Your task to perform on an android device: turn on sleep mode Image 0: 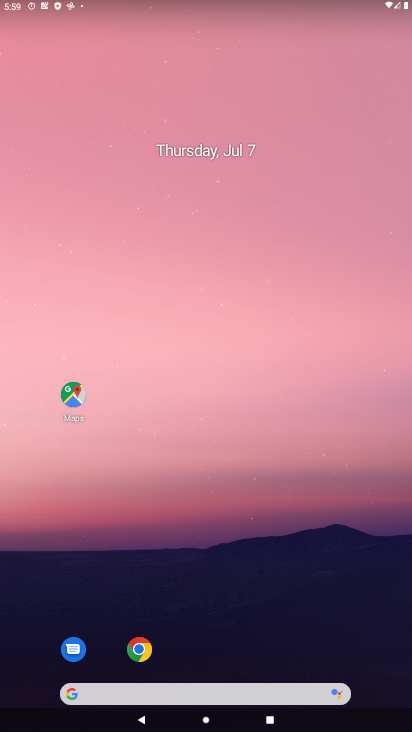
Step 0: drag from (359, 669) to (290, 3)
Your task to perform on an android device: turn on sleep mode Image 1: 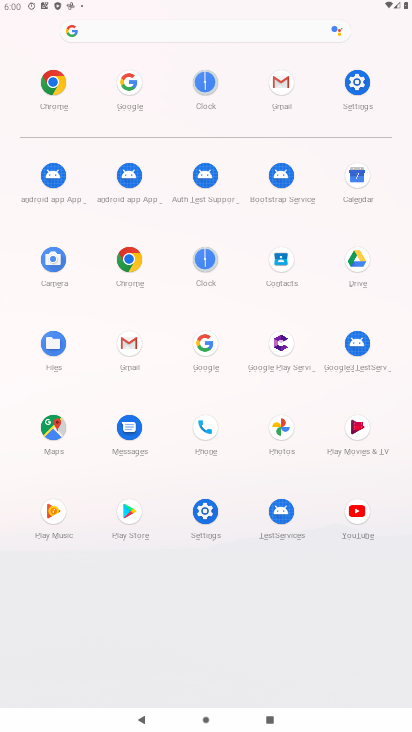
Step 1: click (356, 75)
Your task to perform on an android device: turn on sleep mode Image 2: 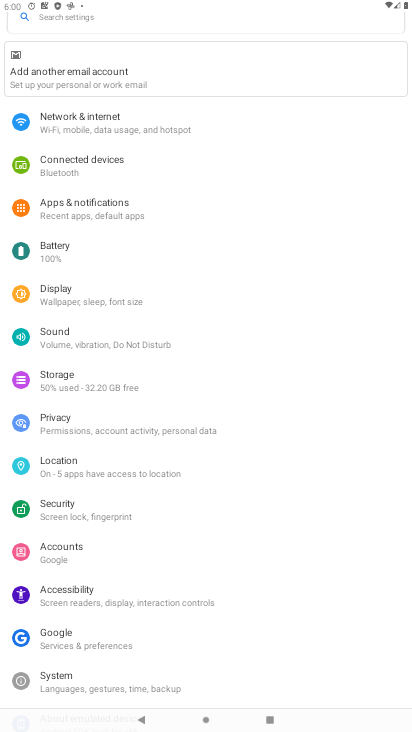
Step 2: task complete